Your task to perform on an android device: change text size in settings app Image 0: 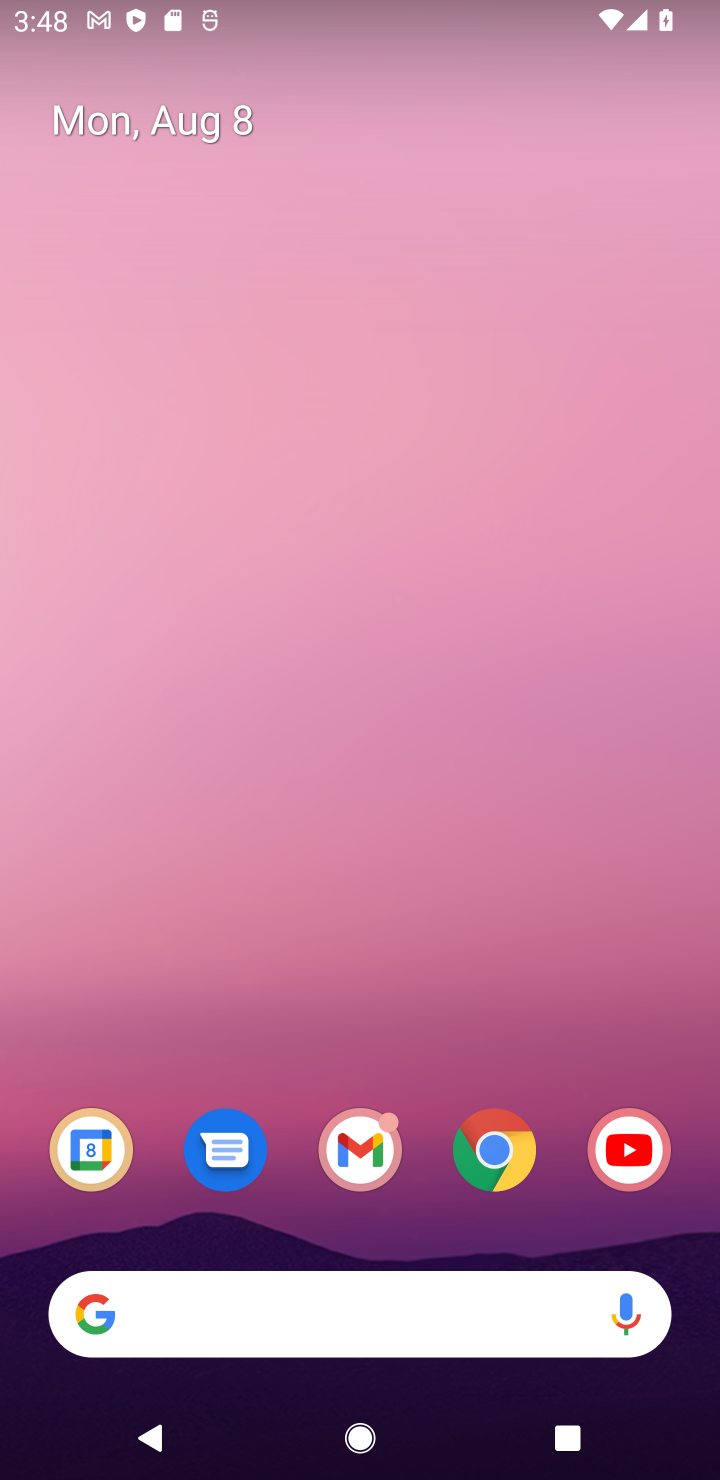
Step 0: drag from (431, 1223) to (441, 181)
Your task to perform on an android device: change text size in settings app Image 1: 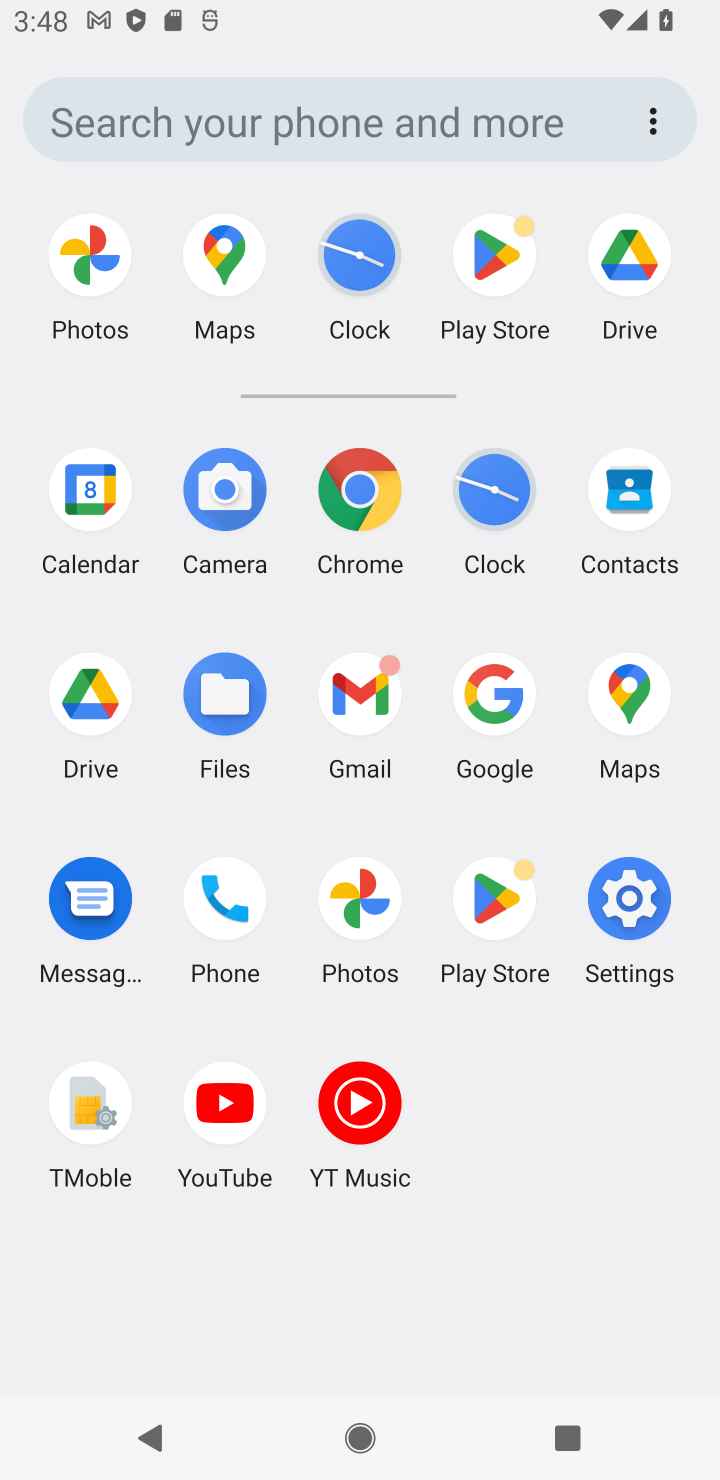
Step 1: click (623, 926)
Your task to perform on an android device: change text size in settings app Image 2: 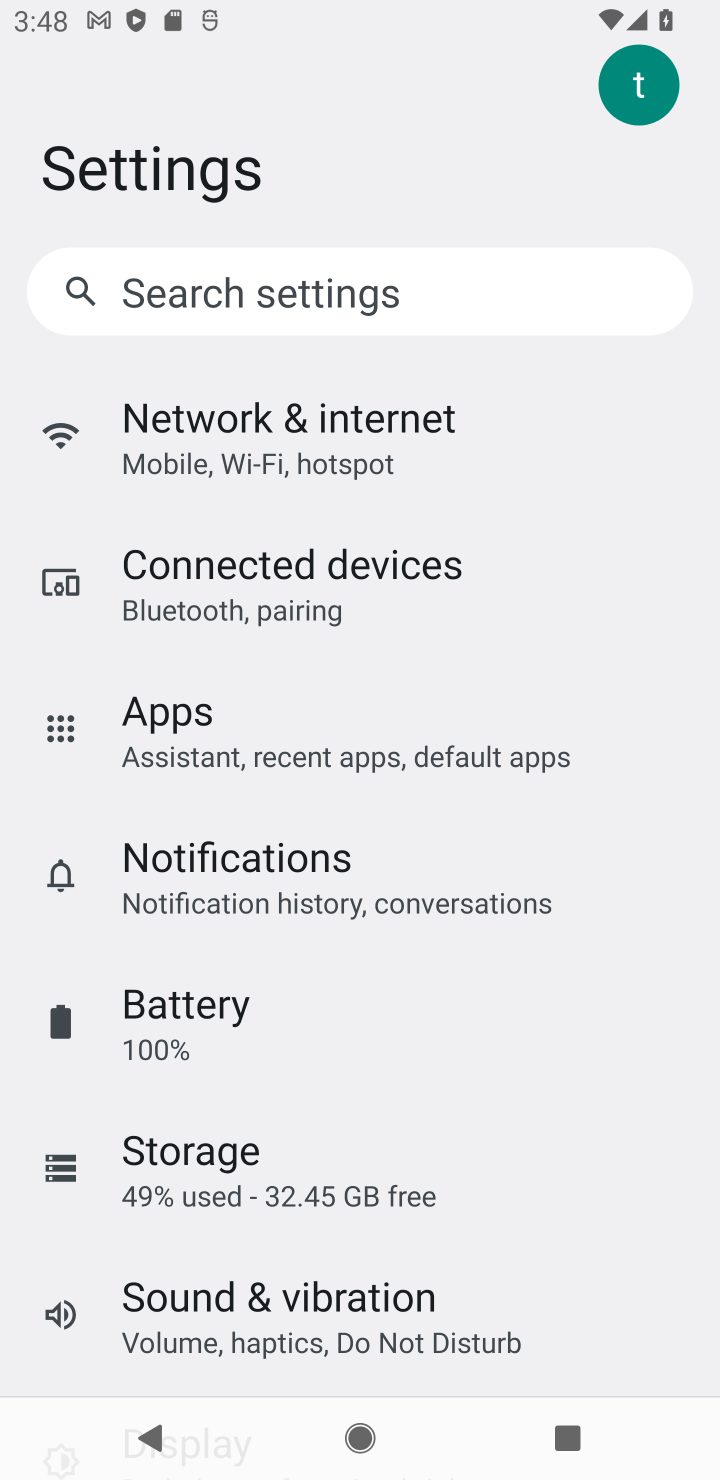
Step 2: task complete